Your task to perform on an android device: check battery use Image 0: 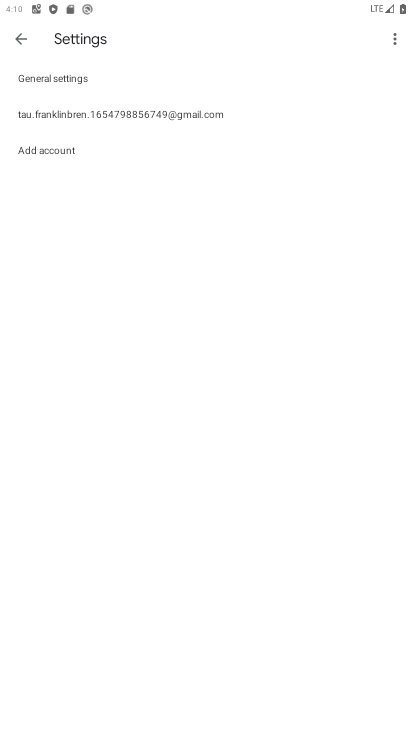
Step 0: press home button
Your task to perform on an android device: check battery use Image 1: 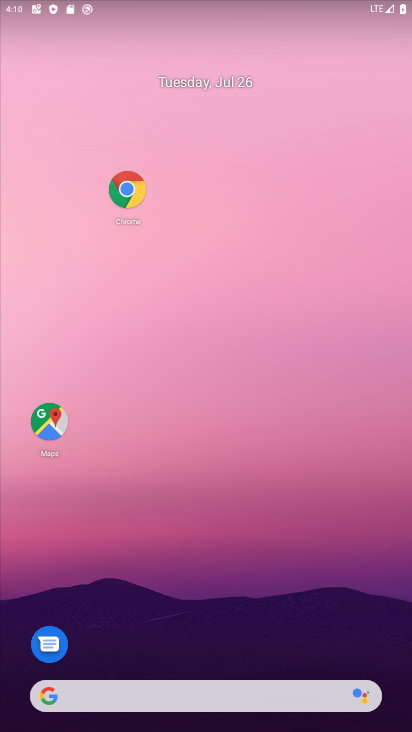
Step 1: drag from (222, 688) to (279, 204)
Your task to perform on an android device: check battery use Image 2: 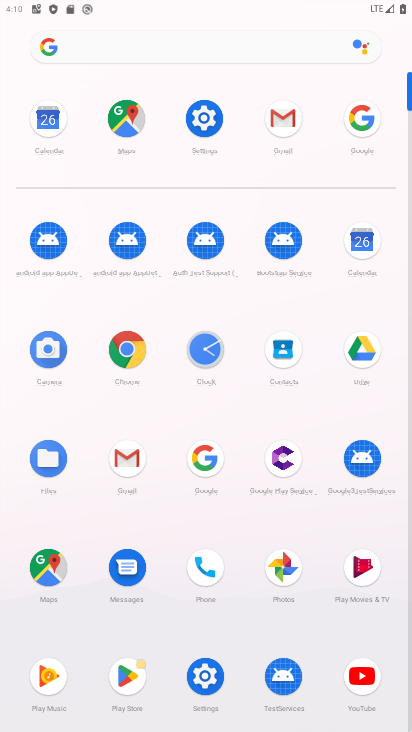
Step 2: click (205, 119)
Your task to perform on an android device: check battery use Image 3: 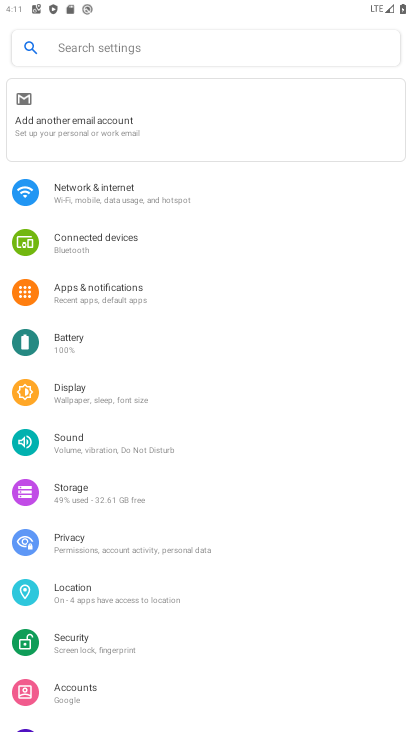
Step 3: click (85, 355)
Your task to perform on an android device: check battery use Image 4: 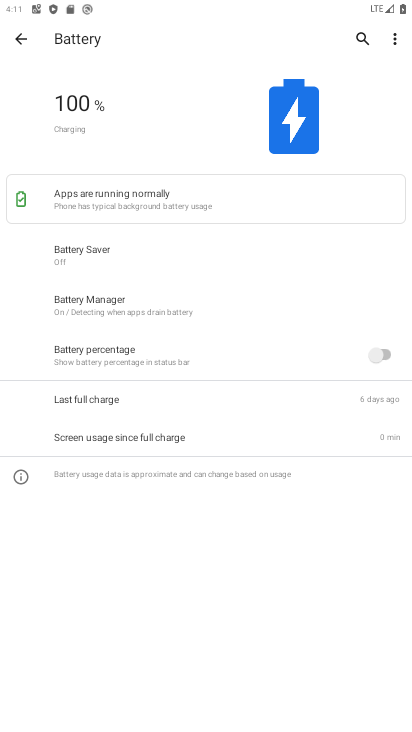
Step 4: click (391, 41)
Your task to perform on an android device: check battery use Image 5: 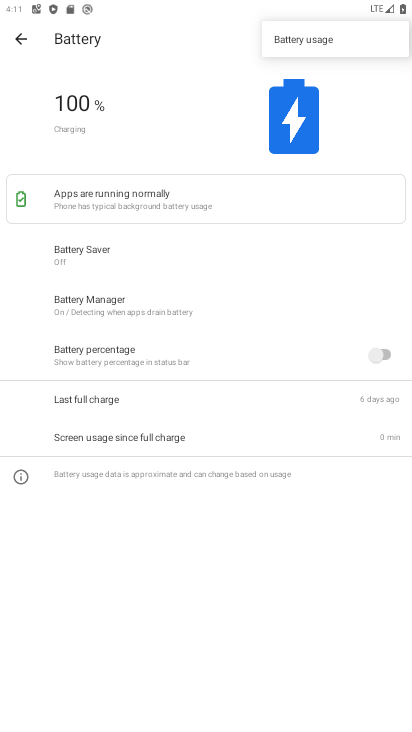
Step 5: click (343, 34)
Your task to perform on an android device: check battery use Image 6: 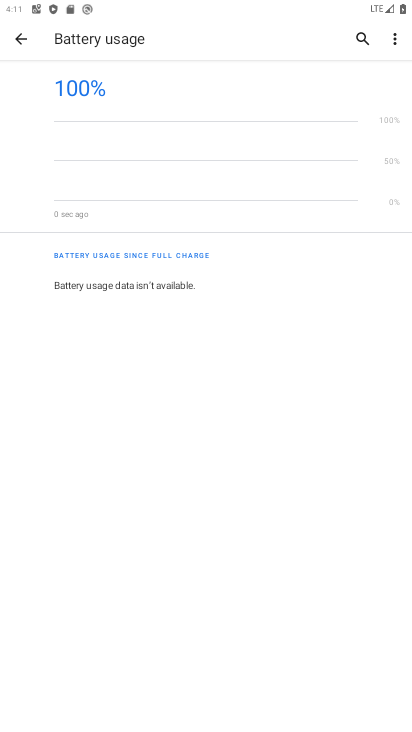
Step 6: task complete